Your task to perform on an android device: Go to battery settings Image 0: 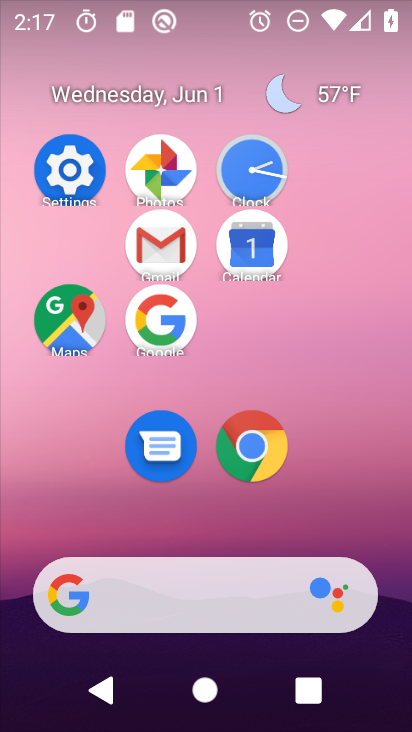
Step 0: click (73, 160)
Your task to perform on an android device: Go to battery settings Image 1: 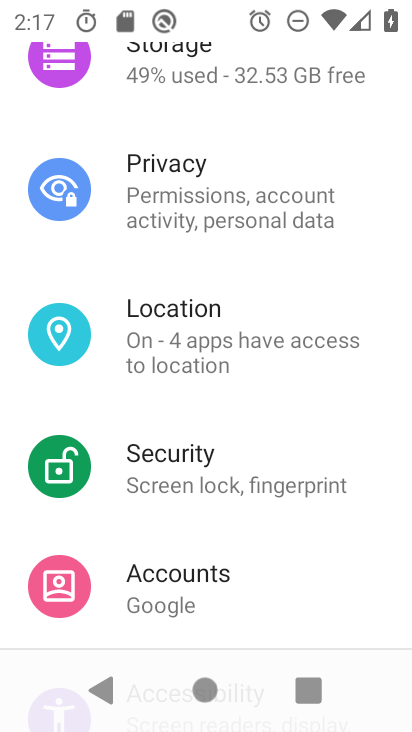
Step 1: drag from (307, 246) to (258, 683)
Your task to perform on an android device: Go to battery settings Image 2: 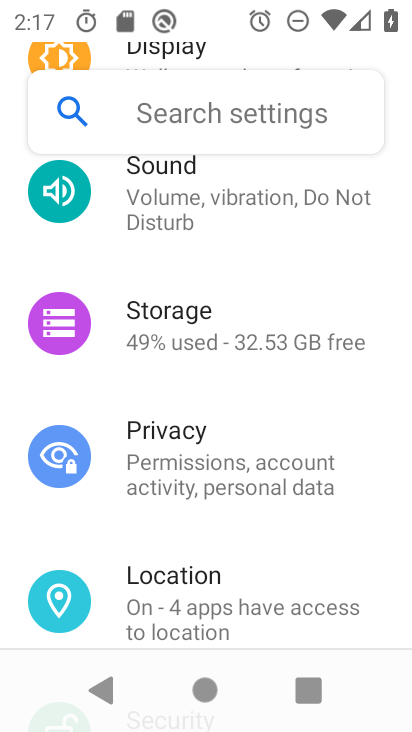
Step 2: drag from (274, 315) to (250, 630)
Your task to perform on an android device: Go to battery settings Image 3: 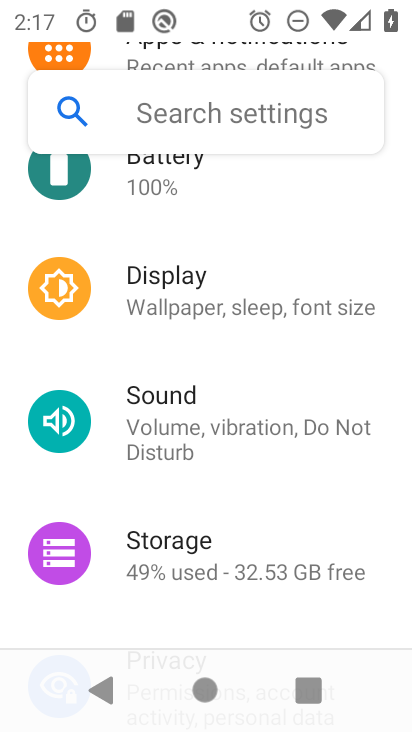
Step 3: click (223, 181)
Your task to perform on an android device: Go to battery settings Image 4: 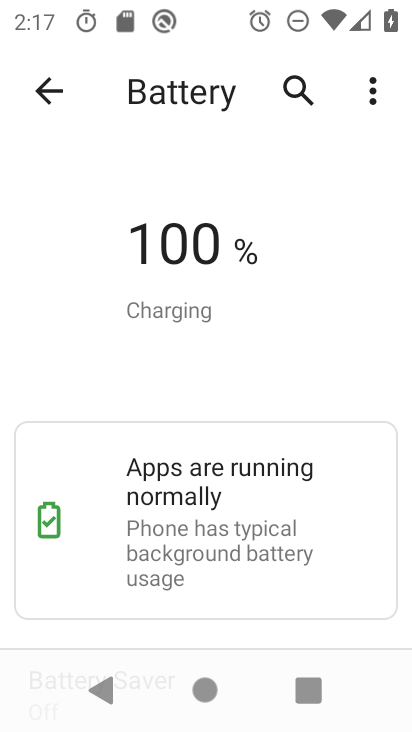
Step 4: task complete